Your task to perform on an android device: Go to battery settings Image 0: 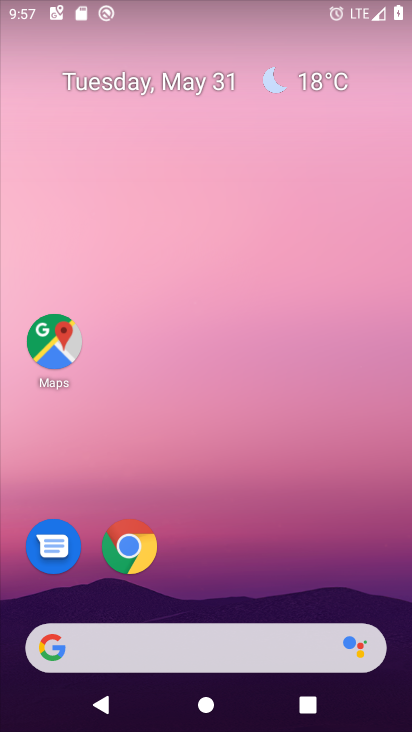
Step 0: drag from (223, 596) to (297, 82)
Your task to perform on an android device: Go to battery settings Image 1: 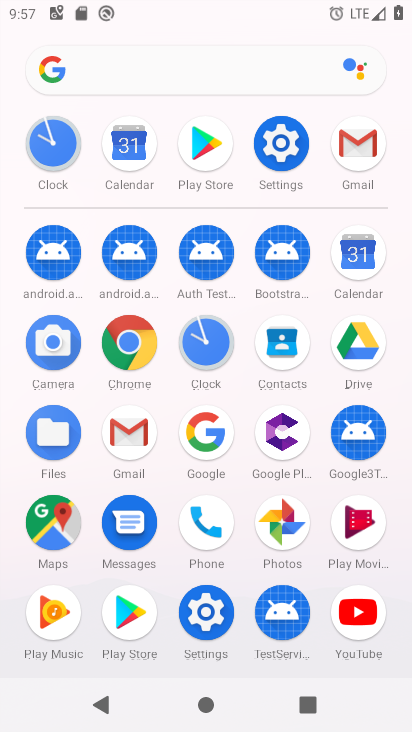
Step 1: click (291, 148)
Your task to perform on an android device: Go to battery settings Image 2: 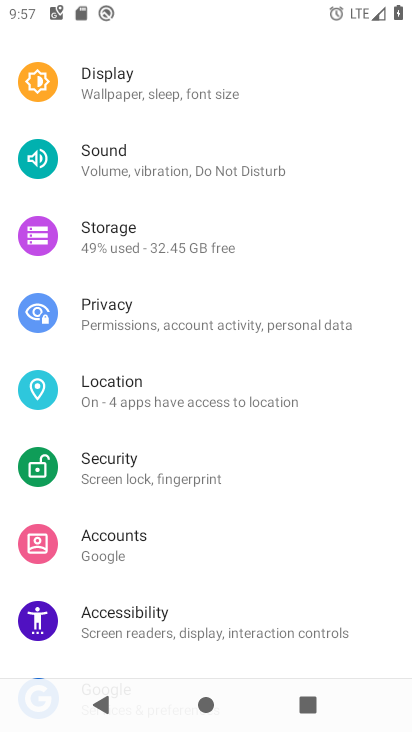
Step 2: drag from (140, 132) to (123, 532)
Your task to perform on an android device: Go to battery settings Image 3: 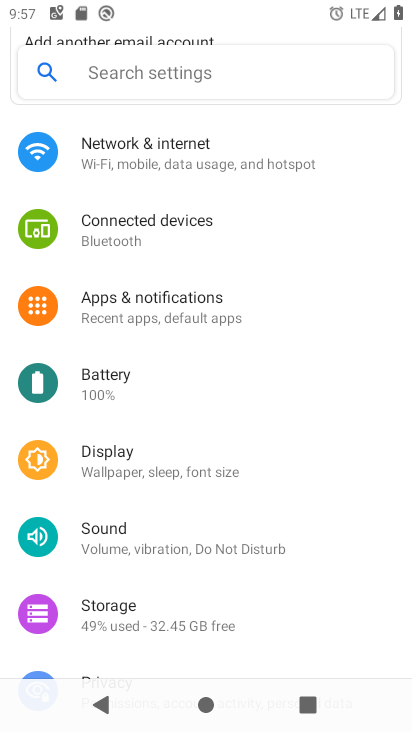
Step 3: click (134, 388)
Your task to perform on an android device: Go to battery settings Image 4: 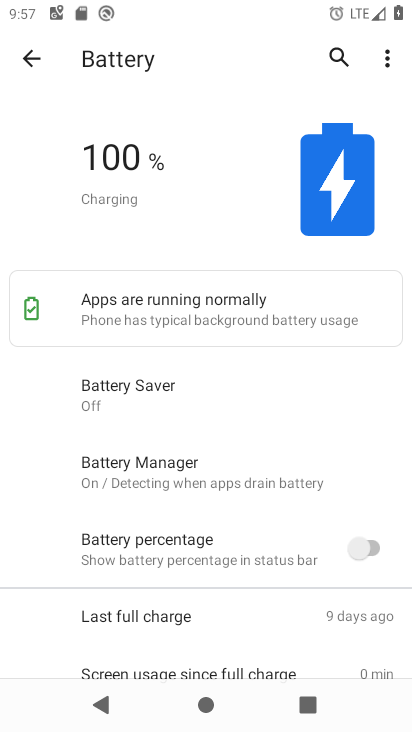
Step 4: task complete